Your task to perform on an android device: Show me the alarms in the clock app Image 0: 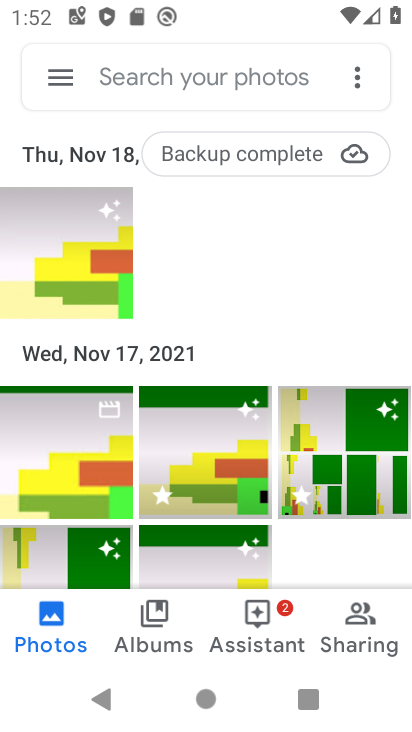
Step 0: press home button
Your task to perform on an android device: Show me the alarms in the clock app Image 1: 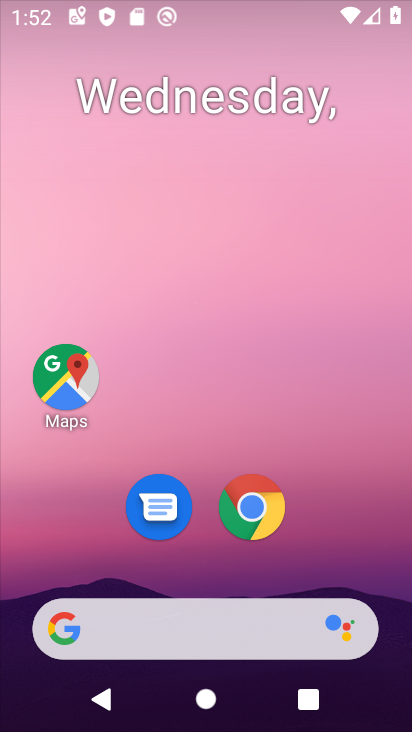
Step 1: drag from (352, 546) to (300, 184)
Your task to perform on an android device: Show me the alarms in the clock app Image 2: 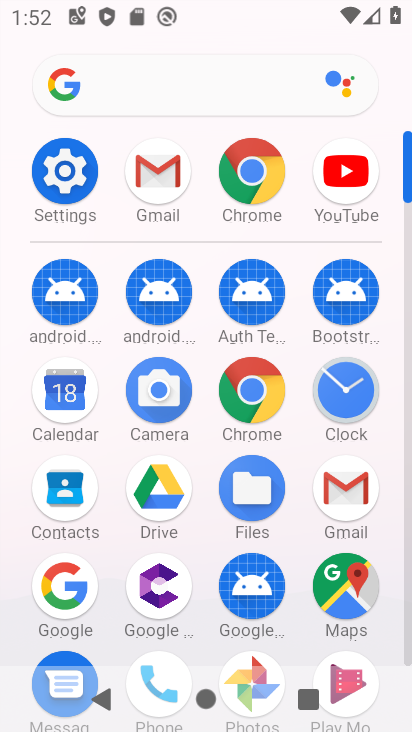
Step 2: click (358, 366)
Your task to perform on an android device: Show me the alarms in the clock app Image 3: 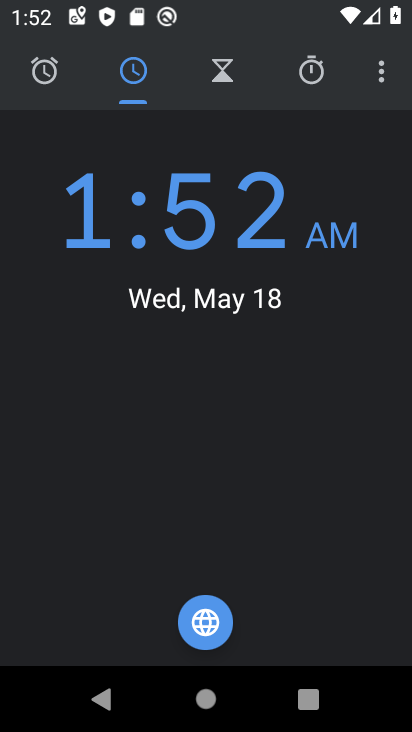
Step 3: click (24, 79)
Your task to perform on an android device: Show me the alarms in the clock app Image 4: 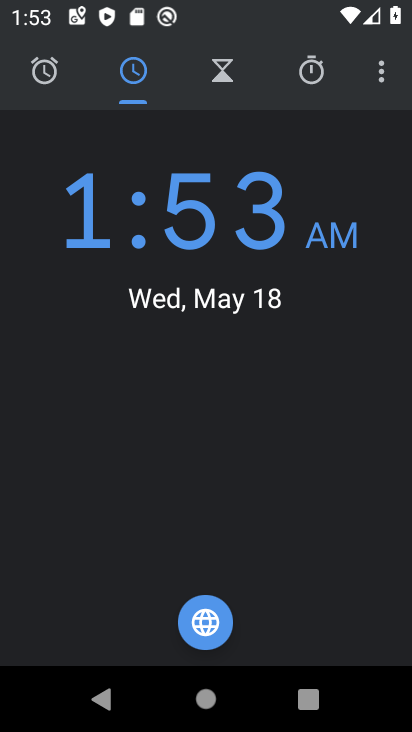
Step 4: task complete